Your task to perform on an android device: toggle pop-ups in chrome Image 0: 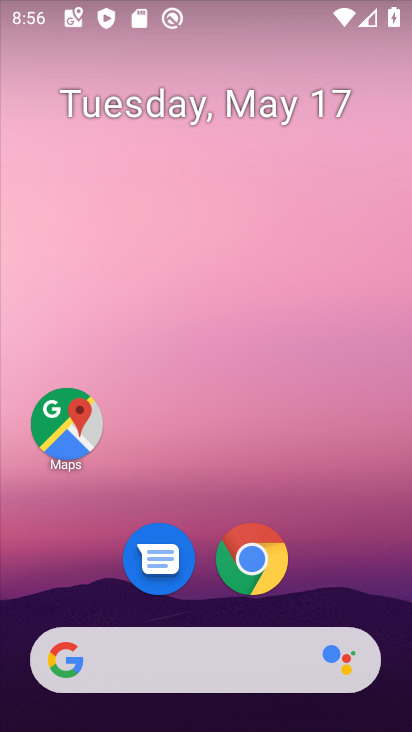
Step 0: click (255, 548)
Your task to perform on an android device: toggle pop-ups in chrome Image 1: 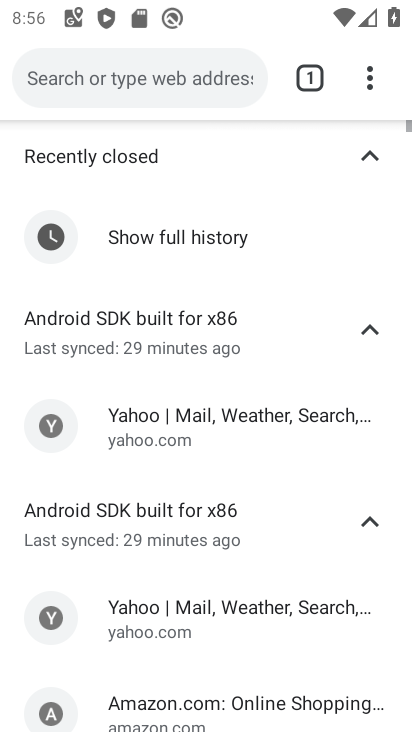
Step 1: click (368, 75)
Your task to perform on an android device: toggle pop-ups in chrome Image 2: 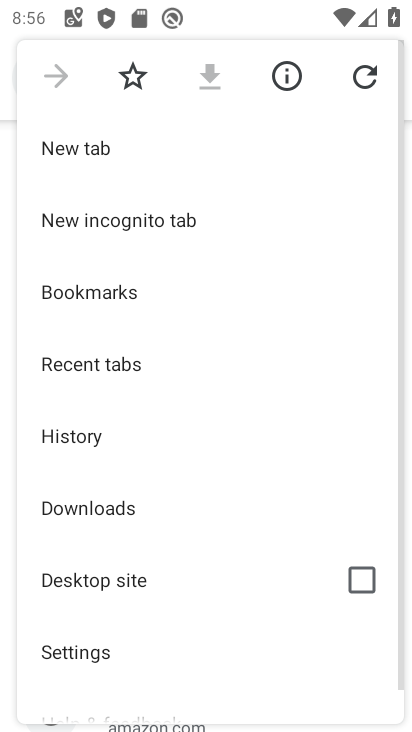
Step 2: click (124, 657)
Your task to perform on an android device: toggle pop-ups in chrome Image 3: 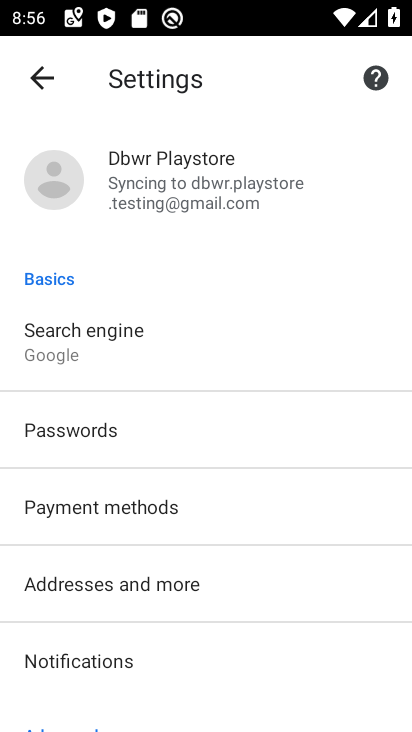
Step 3: drag from (179, 667) to (166, 18)
Your task to perform on an android device: toggle pop-ups in chrome Image 4: 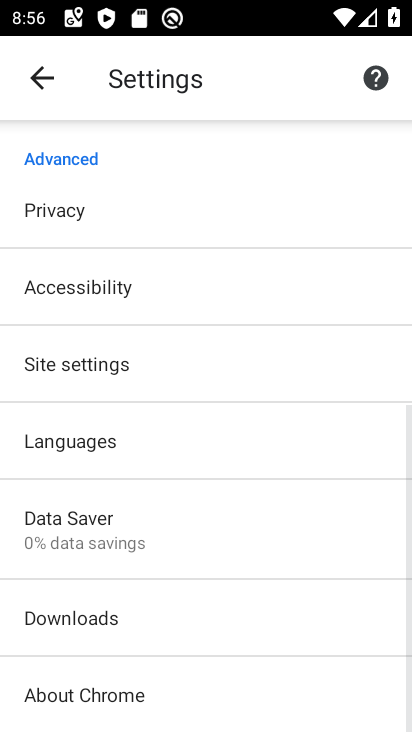
Step 4: drag from (171, 610) to (318, 162)
Your task to perform on an android device: toggle pop-ups in chrome Image 5: 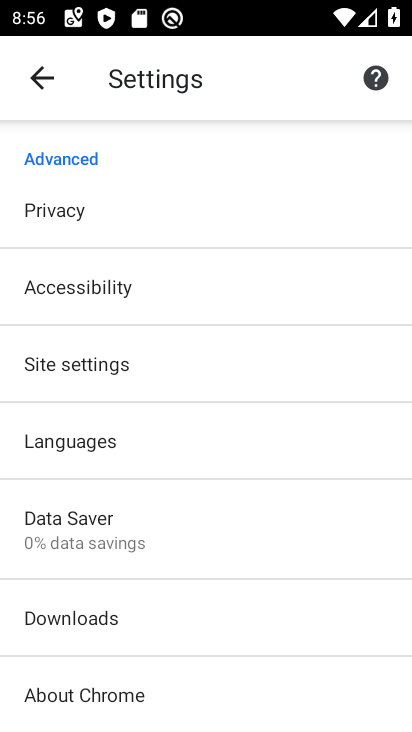
Step 5: click (149, 368)
Your task to perform on an android device: toggle pop-ups in chrome Image 6: 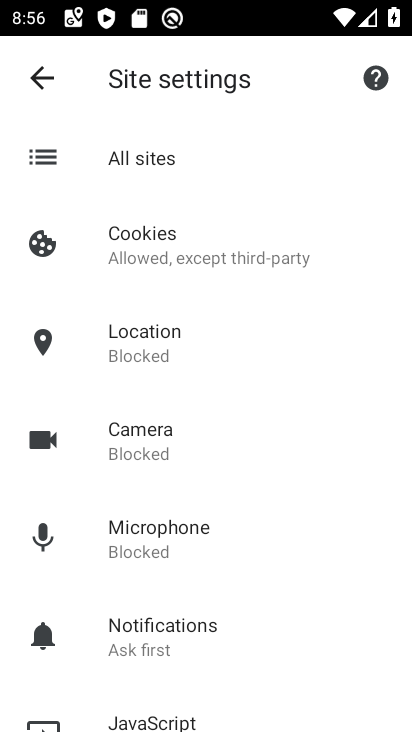
Step 6: drag from (297, 688) to (290, 44)
Your task to perform on an android device: toggle pop-ups in chrome Image 7: 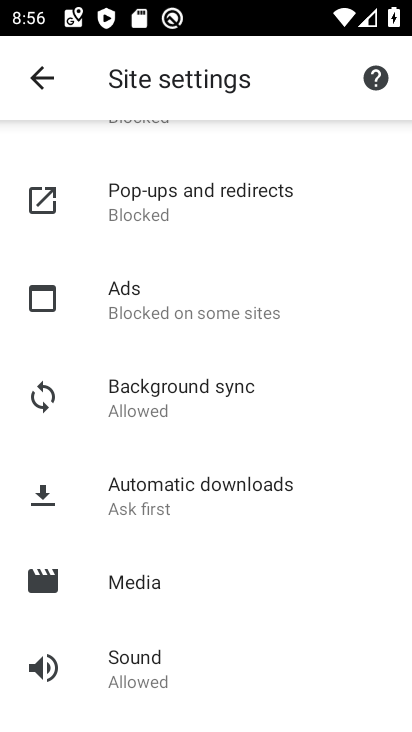
Step 7: click (281, 190)
Your task to perform on an android device: toggle pop-ups in chrome Image 8: 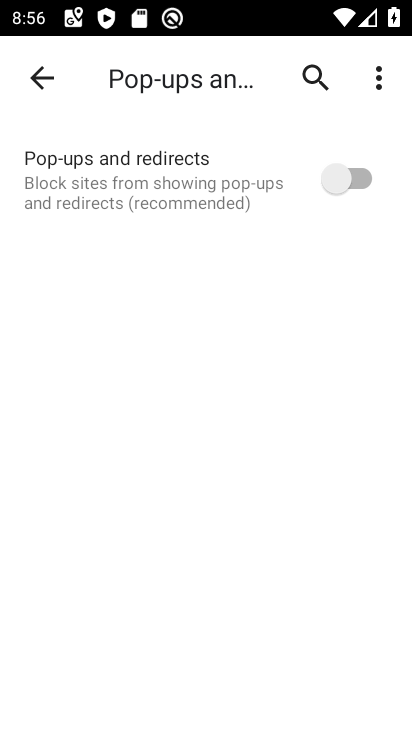
Step 8: click (346, 171)
Your task to perform on an android device: toggle pop-ups in chrome Image 9: 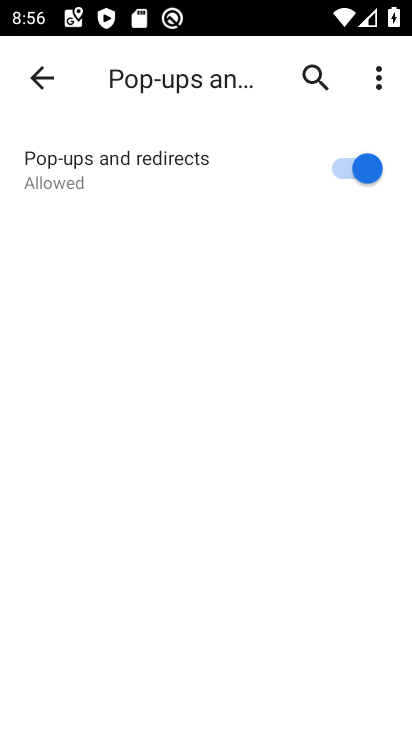
Step 9: task complete